Your task to perform on an android device: Show me popular games on the Play Store Image 0: 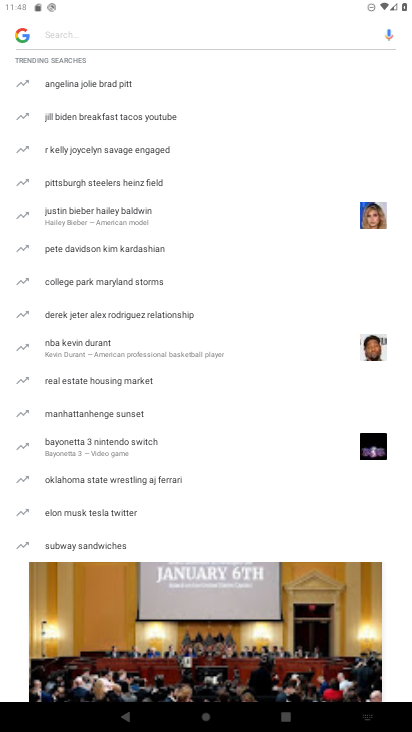
Step 0: press back button
Your task to perform on an android device: Show me popular games on the Play Store Image 1: 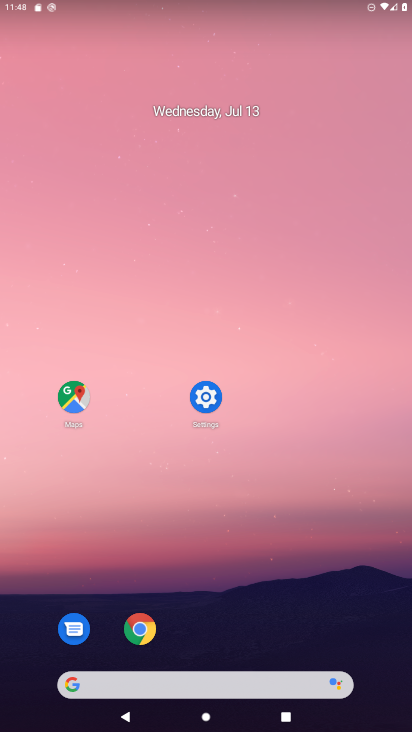
Step 1: drag from (393, 652) to (346, 174)
Your task to perform on an android device: Show me popular games on the Play Store Image 2: 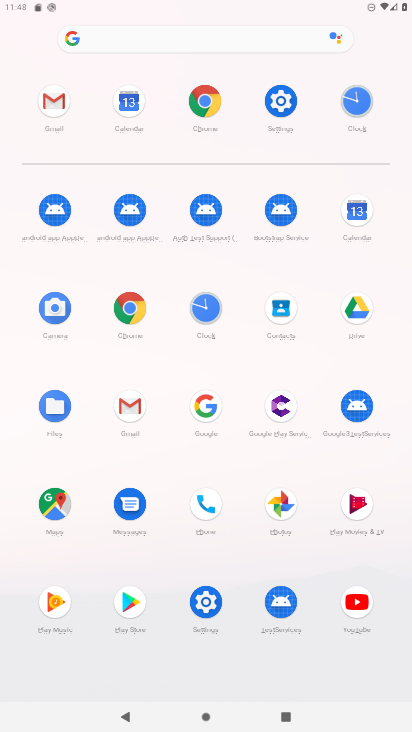
Step 2: click (132, 605)
Your task to perform on an android device: Show me popular games on the Play Store Image 3: 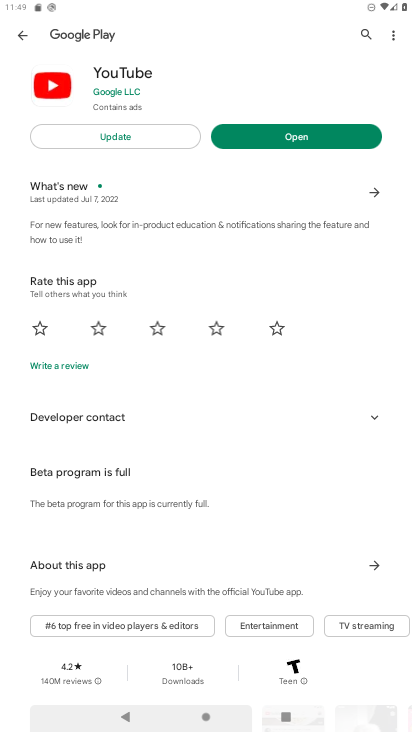
Step 3: press home button
Your task to perform on an android device: Show me popular games on the Play Store Image 4: 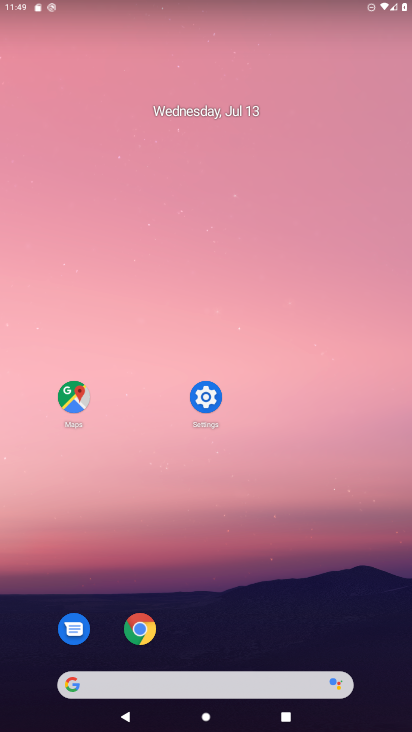
Step 4: drag from (378, 471) to (342, 122)
Your task to perform on an android device: Show me popular games on the Play Store Image 5: 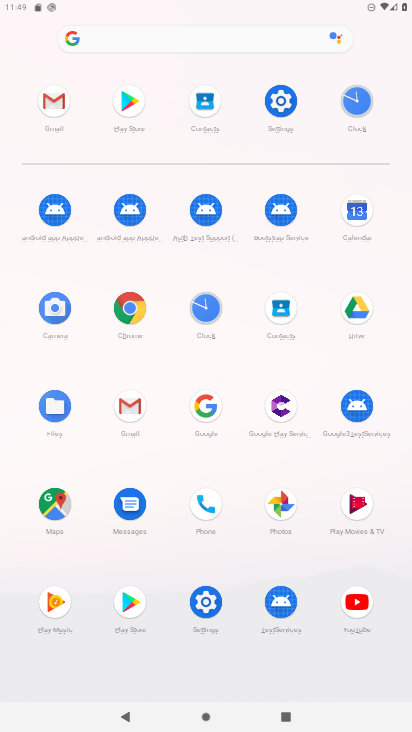
Step 5: click (124, 607)
Your task to perform on an android device: Show me popular games on the Play Store Image 6: 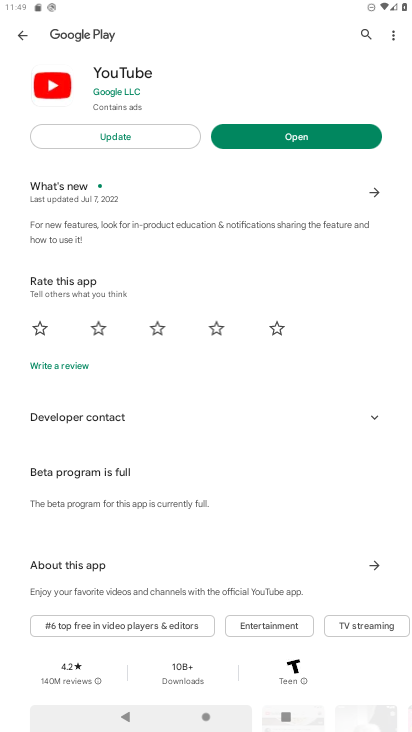
Step 6: click (24, 35)
Your task to perform on an android device: Show me popular games on the Play Store Image 7: 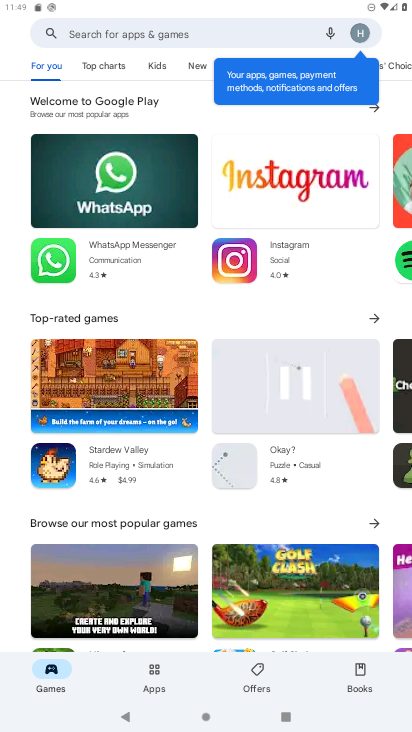
Step 7: click (66, 33)
Your task to perform on an android device: Show me popular games on the Play Store Image 8: 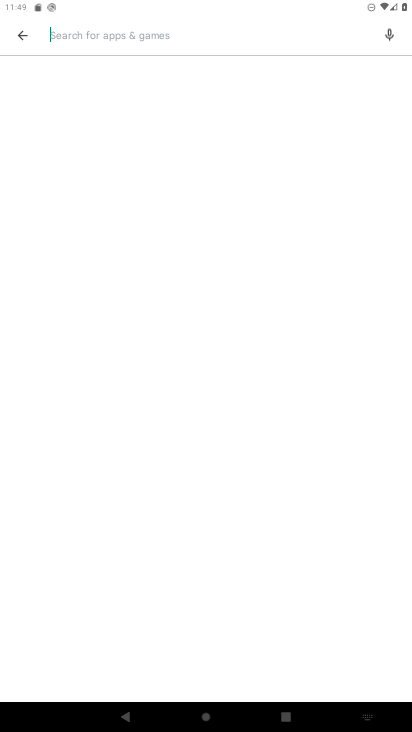
Step 8: type "popular games on the Play Store"
Your task to perform on an android device: Show me popular games on the Play Store Image 9: 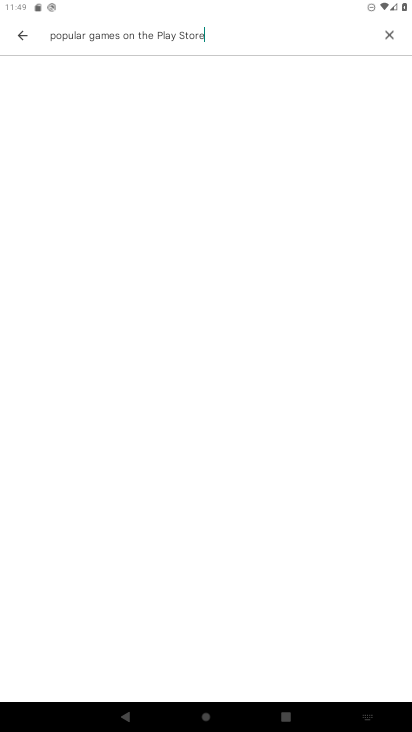
Step 9: task complete